Your task to perform on an android device: check the backup settings in the google photos Image 0: 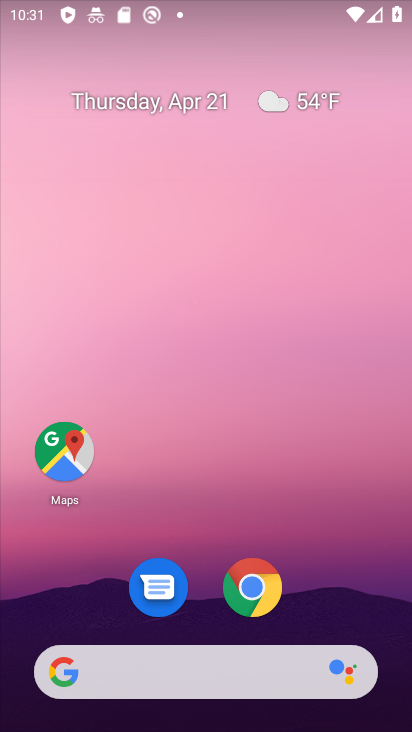
Step 0: drag from (209, 649) to (147, 7)
Your task to perform on an android device: check the backup settings in the google photos Image 1: 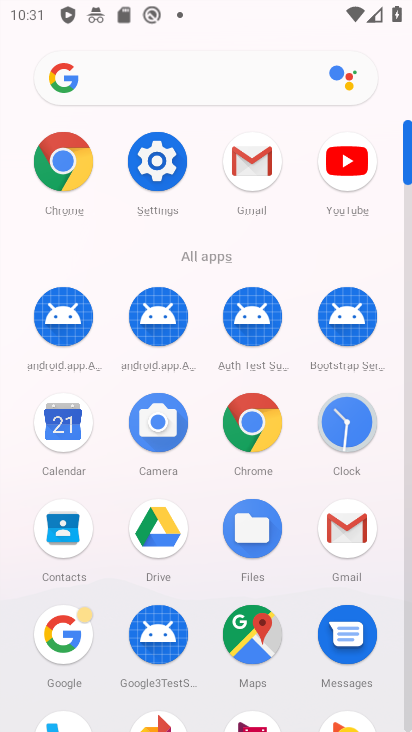
Step 1: drag from (196, 586) to (174, 1)
Your task to perform on an android device: check the backup settings in the google photos Image 2: 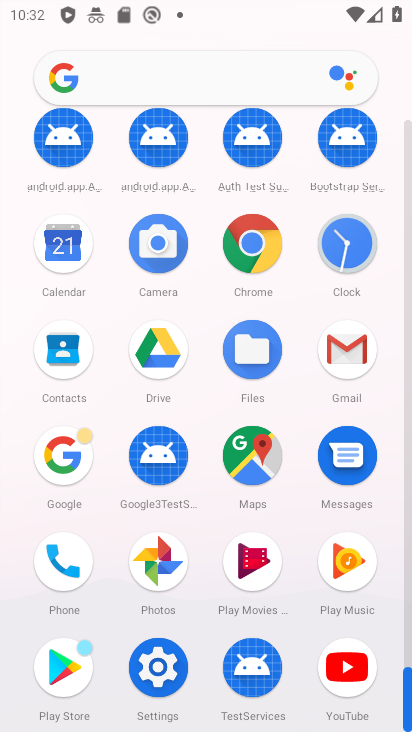
Step 2: click (160, 571)
Your task to perform on an android device: check the backup settings in the google photos Image 3: 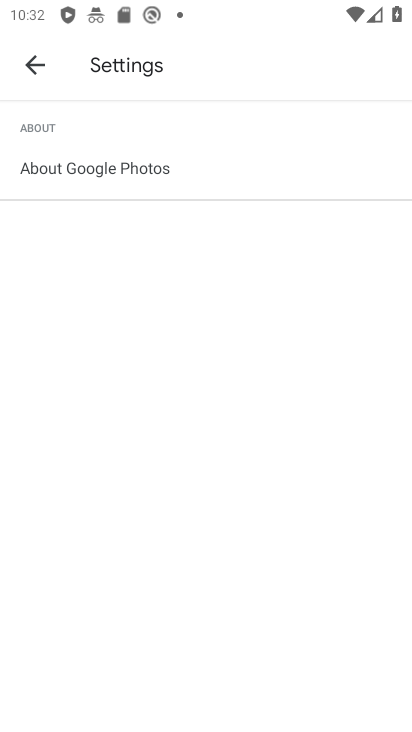
Step 3: click (31, 73)
Your task to perform on an android device: check the backup settings in the google photos Image 4: 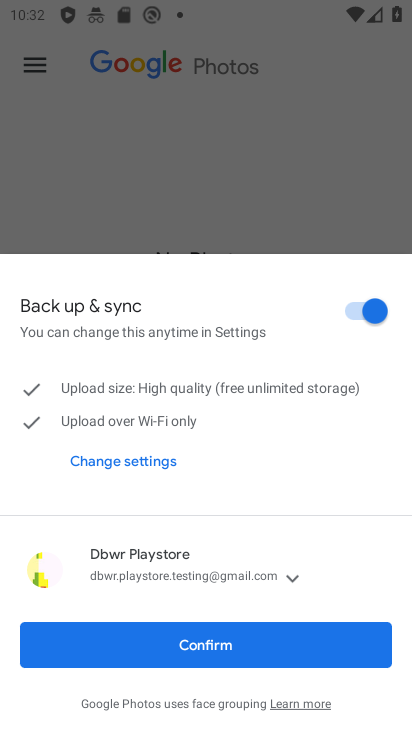
Step 4: click (223, 648)
Your task to perform on an android device: check the backup settings in the google photos Image 5: 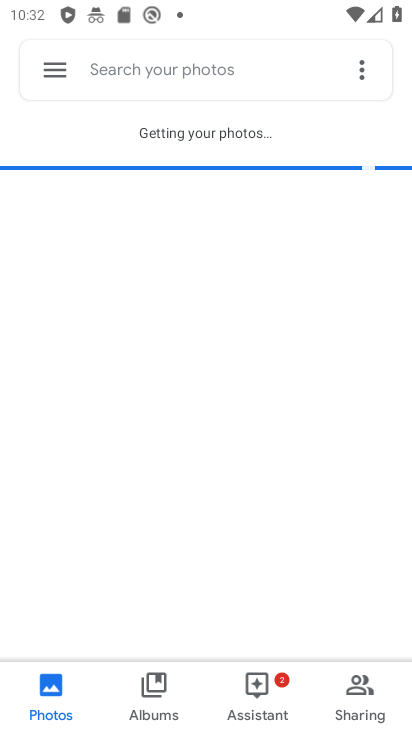
Step 5: click (50, 65)
Your task to perform on an android device: check the backup settings in the google photos Image 6: 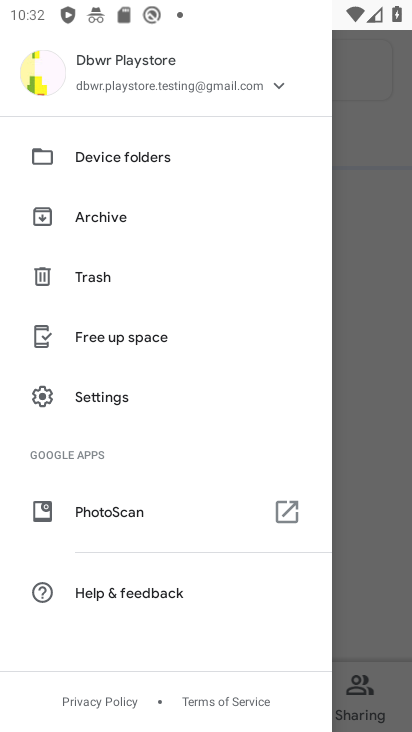
Step 6: click (89, 408)
Your task to perform on an android device: check the backup settings in the google photos Image 7: 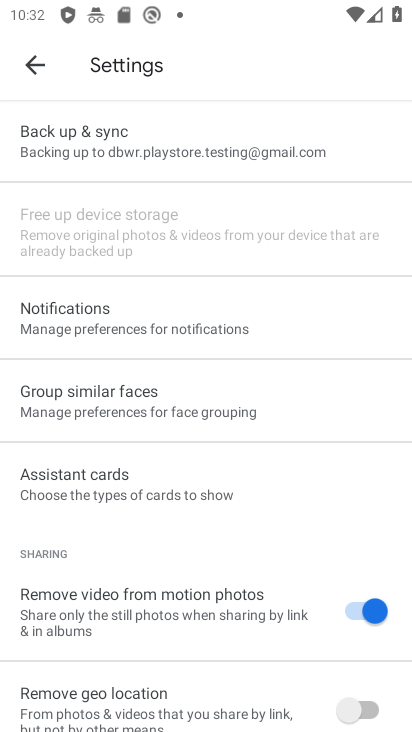
Step 7: click (133, 157)
Your task to perform on an android device: check the backup settings in the google photos Image 8: 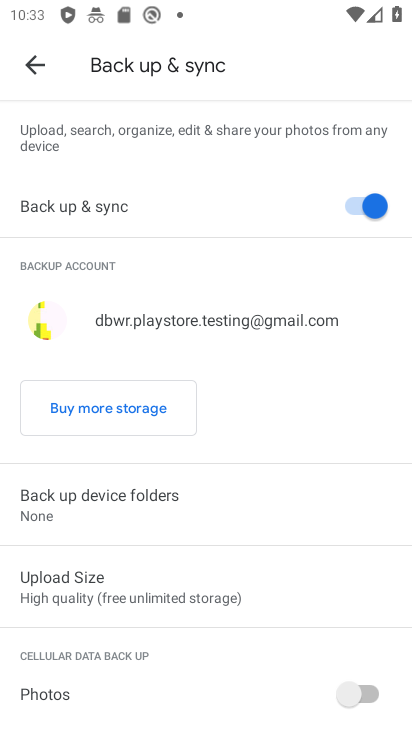
Step 8: task complete